Your task to perform on an android device: turn off picture-in-picture Image 0: 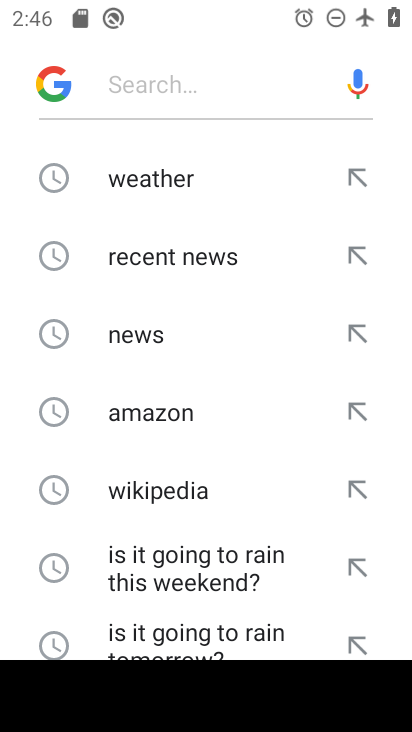
Step 0: press home button
Your task to perform on an android device: turn off picture-in-picture Image 1: 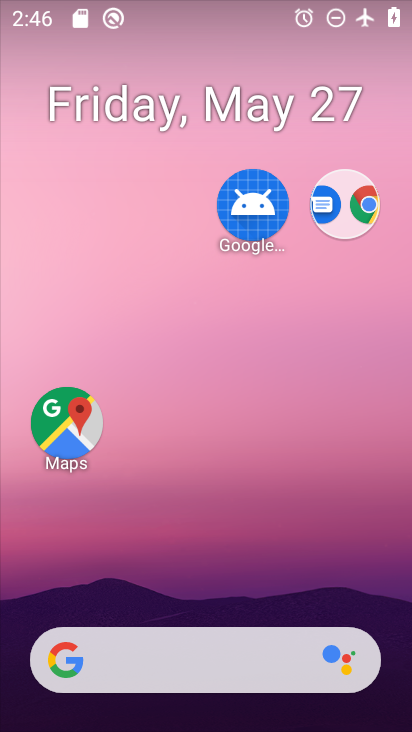
Step 1: drag from (205, 579) to (370, 58)
Your task to perform on an android device: turn off picture-in-picture Image 2: 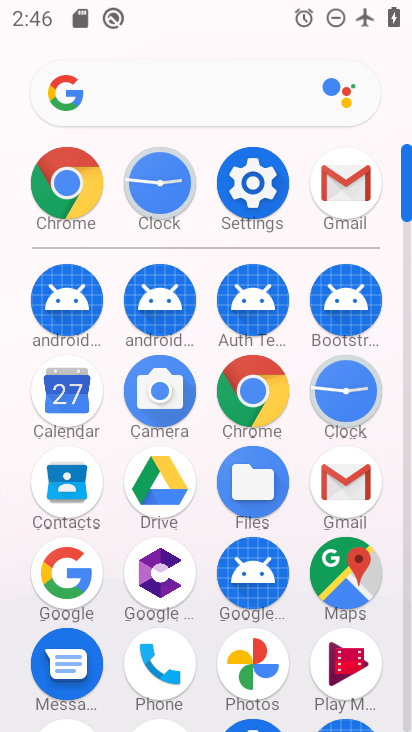
Step 2: click (283, 186)
Your task to perform on an android device: turn off picture-in-picture Image 3: 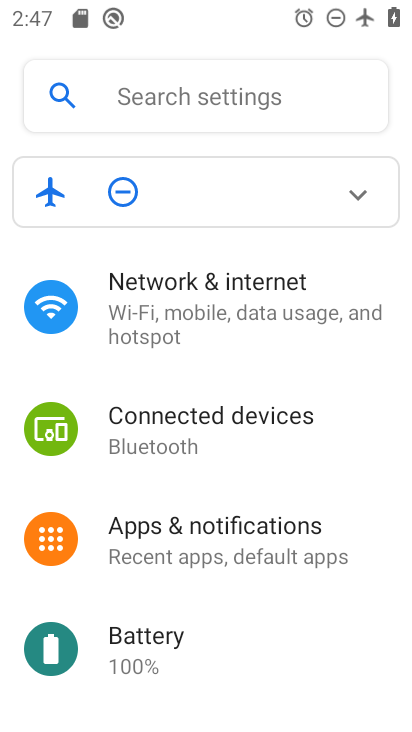
Step 3: click (245, 551)
Your task to perform on an android device: turn off picture-in-picture Image 4: 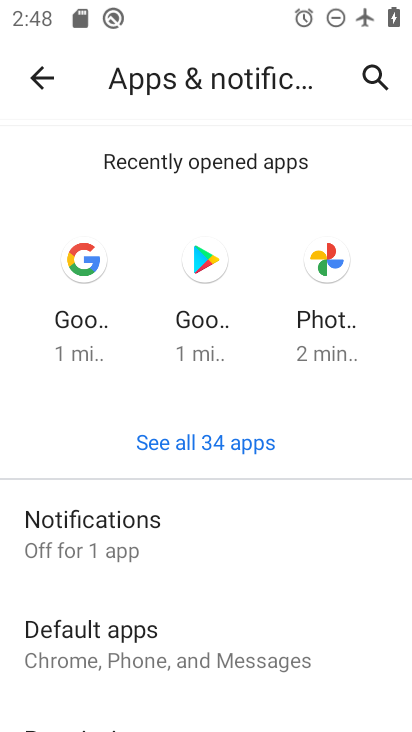
Step 4: drag from (197, 616) to (258, 274)
Your task to perform on an android device: turn off picture-in-picture Image 5: 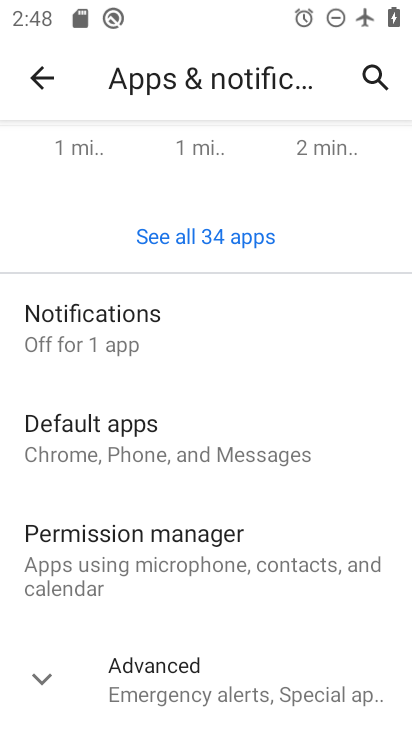
Step 5: click (225, 679)
Your task to perform on an android device: turn off picture-in-picture Image 6: 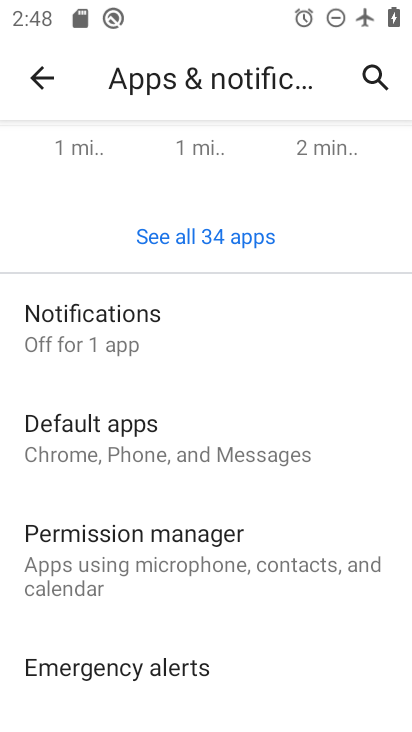
Step 6: drag from (163, 578) to (244, 151)
Your task to perform on an android device: turn off picture-in-picture Image 7: 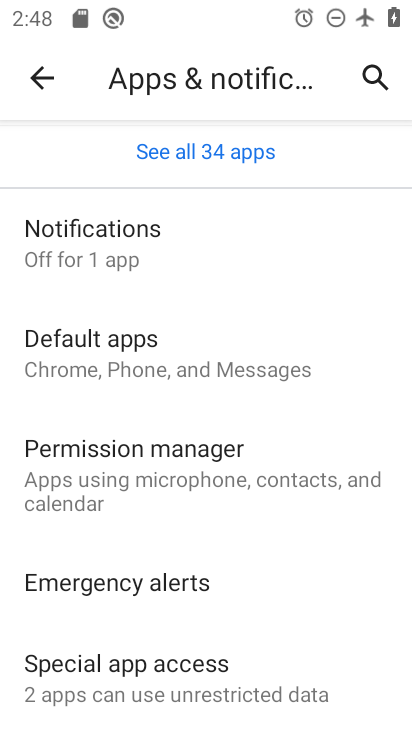
Step 7: click (224, 685)
Your task to perform on an android device: turn off picture-in-picture Image 8: 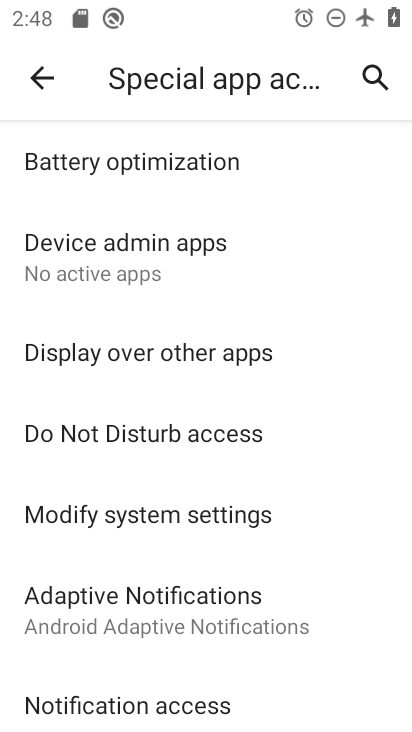
Step 8: drag from (177, 570) to (242, 267)
Your task to perform on an android device: turn off picture-in-picture Image 9: 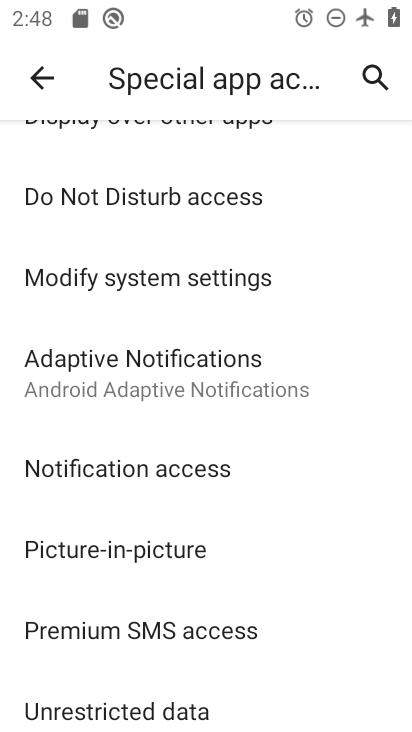
Step 9: click (179, 554)
Your task to perform on an android device: turn off picture-in-picture Image 10: 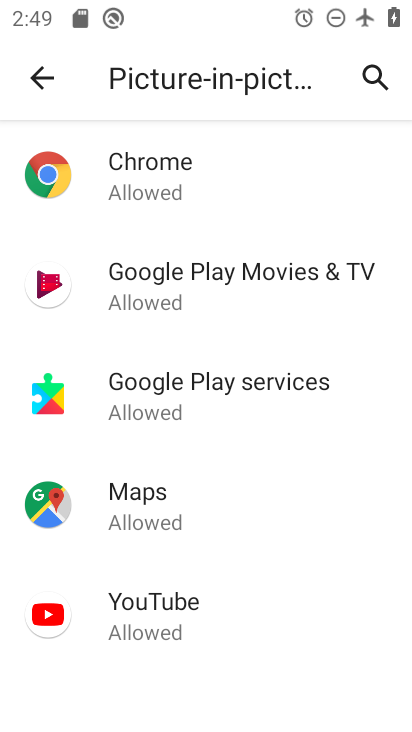
Step 10: click (236, 185)
Your task to perform on an android device: turn off picture-in-picture Image 11: 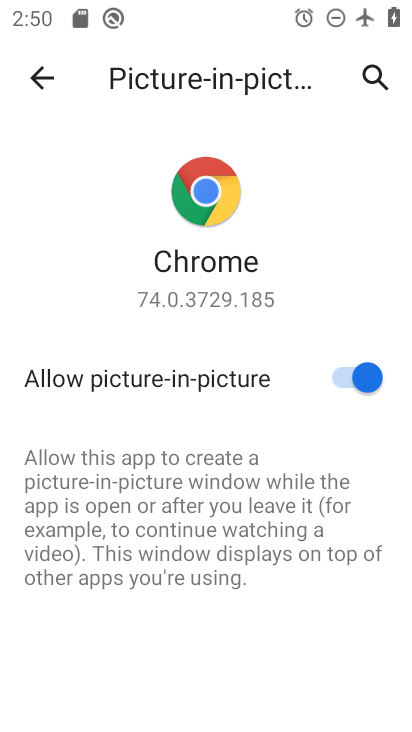
Step 11: click (328, 382)
Your task to perform on an android device: turn off picture-in-picture Image 12: 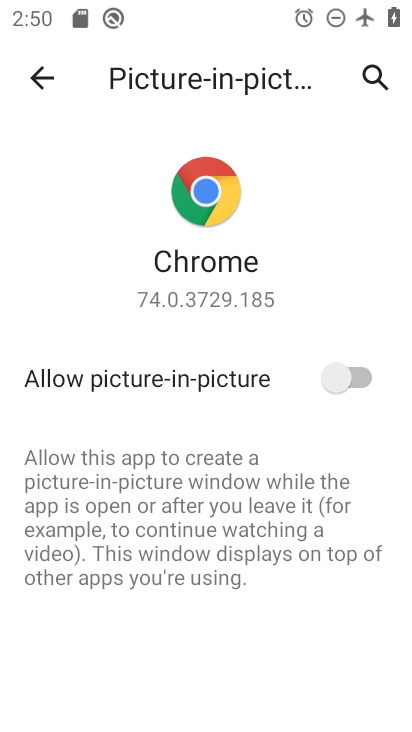
Step 12: task complete